Your task to perform on an android device: turn off priority inbox in the gmail app Image 0: 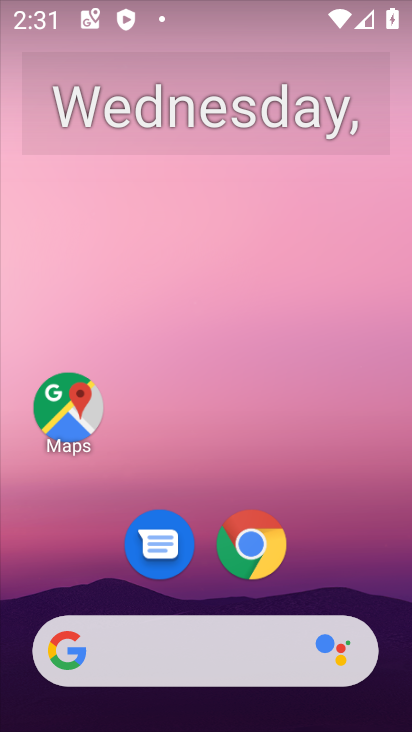
Step 0: drag from (338, 552) to (324, 163)
Your task to perform on an android device: turn off priority inbox in the gmail app Image 1: 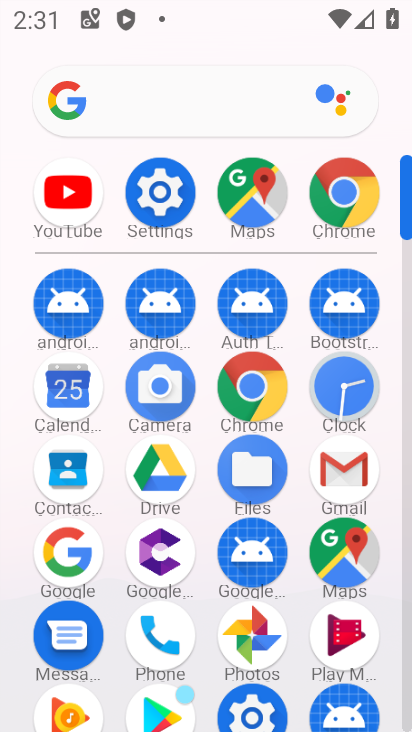
Step 1: click (338, 485)
Your task to perform on an android device: turn off priority inbox in the gmail app Image 2: 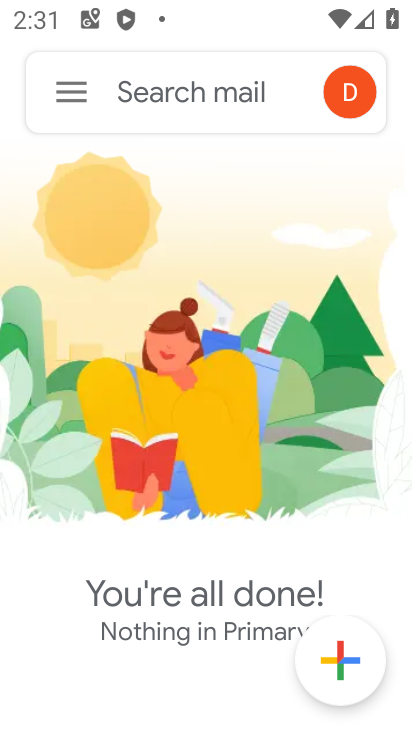
Step 2: click (86, 101)
Your task to perform on an android device: turn off priority inbox in the gmail app Image 3: 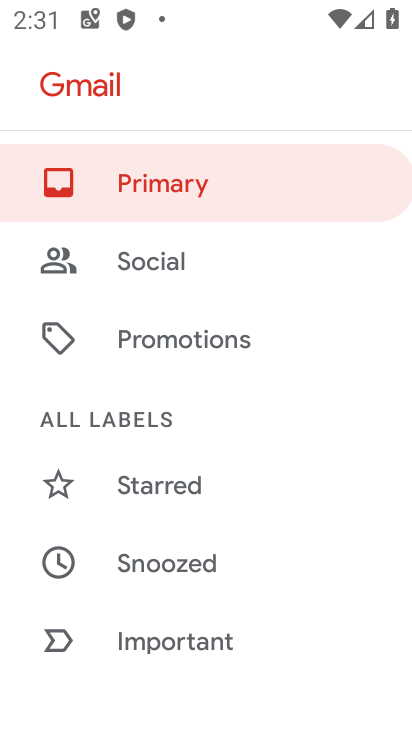
Step 3: drag from (176, 642) to (202, 155)
Your task to perform on an android device: turn off priority inbox in the gmail app Image 4: 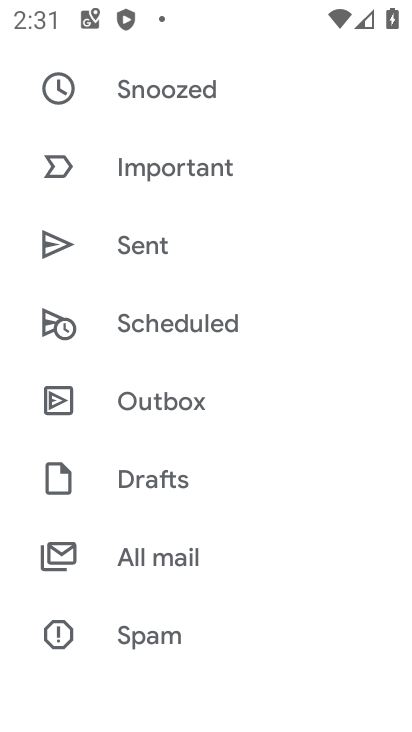
Step 4: drag from (211, 634) to (233, 238)
Your task to perform on an android device: turn off priority inbox in the gmail app Image 5: 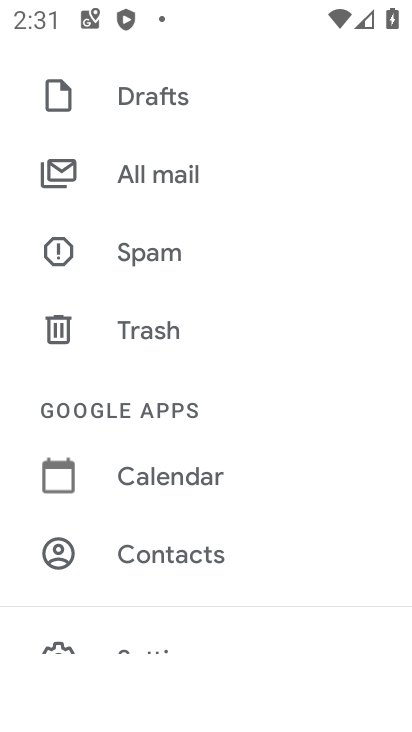
Step 5: drag from (246, 567) to (266, 210)
Your task to perform on an android device: turn off priority inbox in the gmail app Image 6: 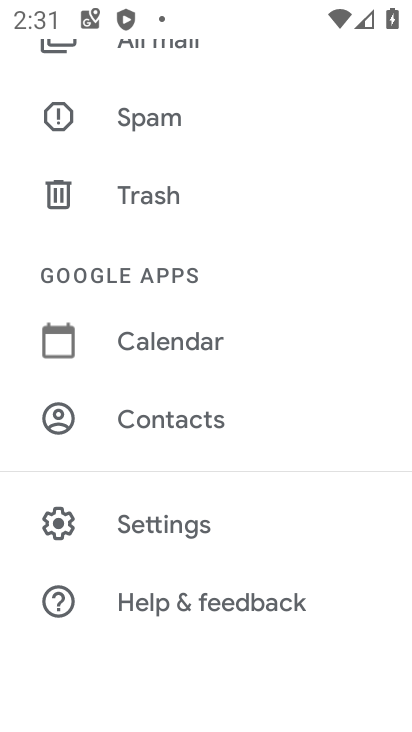
Step 6: click (199, 516)
Your task to perform on an android device: turn off priority inbox in the gmail app Image 7: 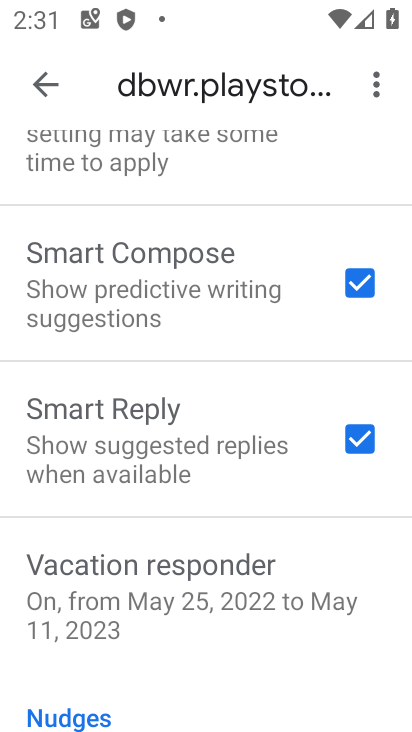
Step 7: drag from (165, 178) to (156, 580)
Your task to perform on an android device: turn off priority inbox in the gmail app Image 8: 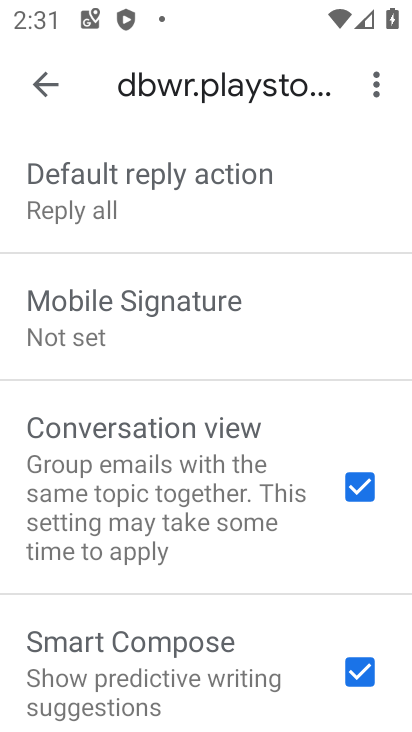
Step 8: drag from (155, 225) to (147, 553)
Your task to perform on an android device: turn off priority inbox in the gmail app Image 9: 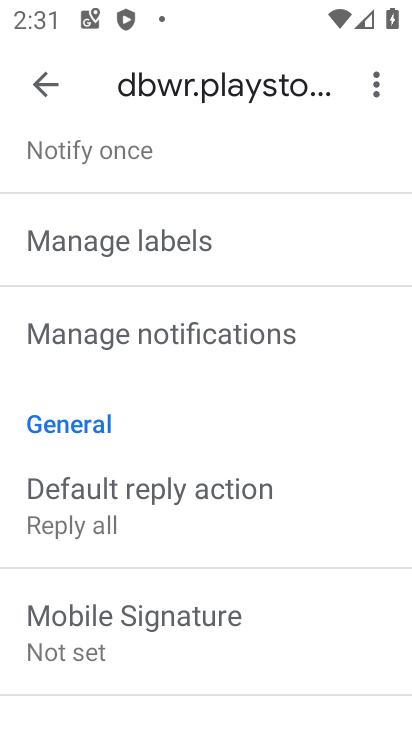
Step 9: drag from (219, 160) to (250, 597)
Your task to perform on an android device: turn off priority inbox in the gmail app Image 10: 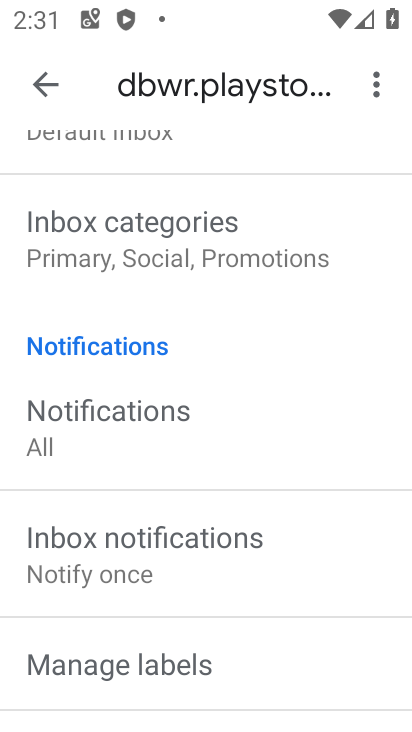
Step 10: drag from (190, 269) to (195, 603)
Your task to perform on an android device: turn off priority inbox in the gmail app Image 11: 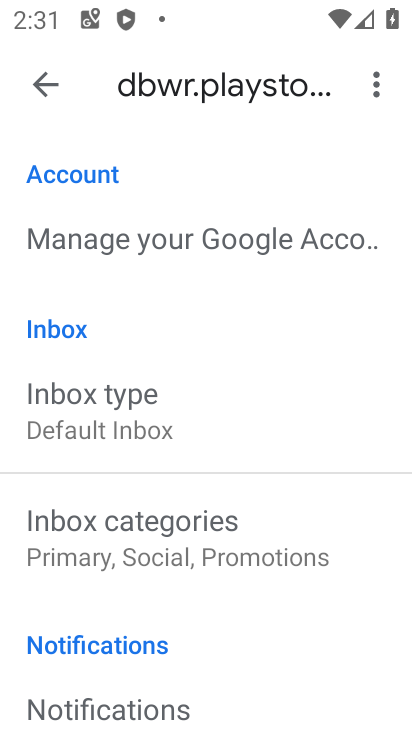
Step 11: click (152, 444)
Your task to perform on an android device: turn off priority inbox in the gmail app Image 12: 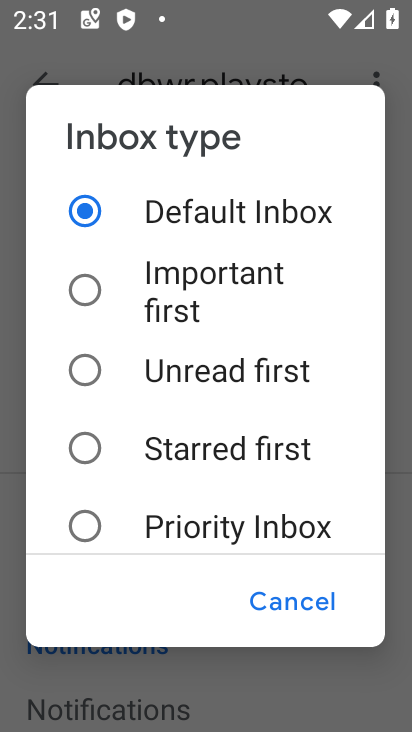
Step 12: task complete